Your task to perform on an android device: find snoozed emails in the gmail app Image 0: 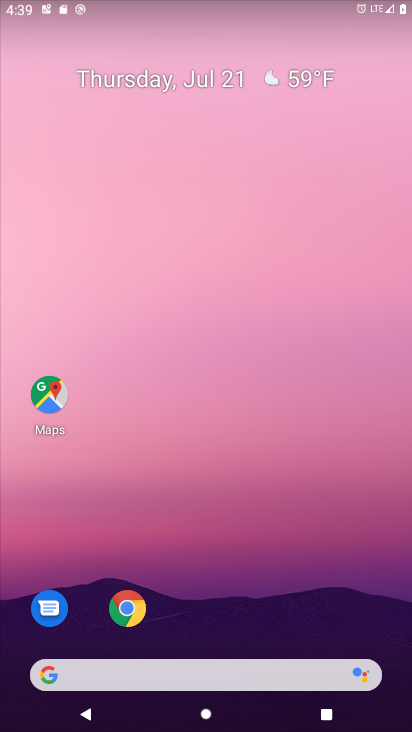
Step 0: drag from (241, 667) to (201, 187)
Your task to perform on an android device: find snoozed emails in the gmail app Image 1: 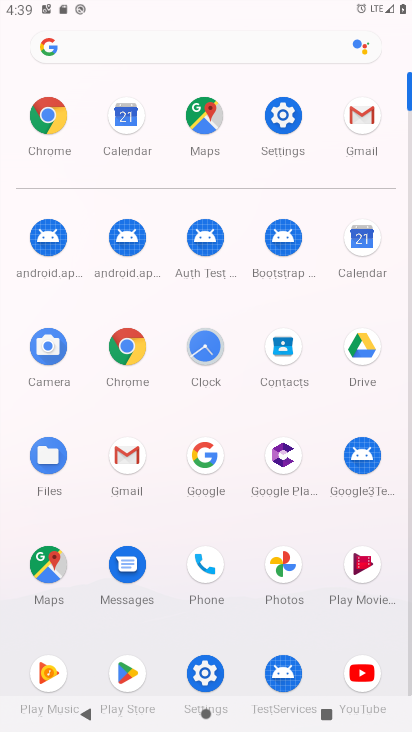
Step 1: drag from (230, 672) to (171, 82)
Your task to perform on an android device: find snoozed emails in the gmail app Image 2: 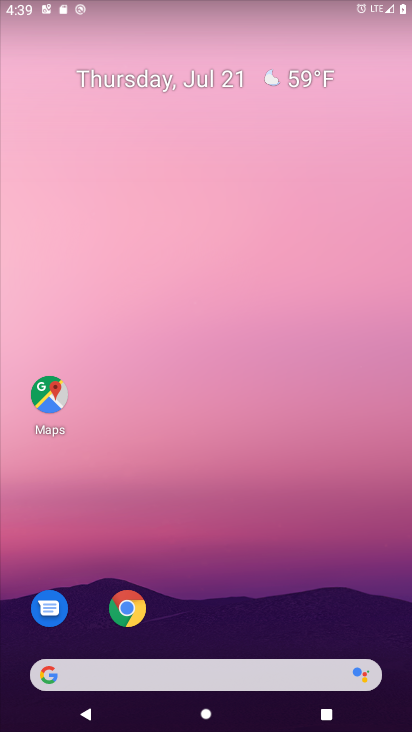
Step 2: drag from (327, 664) to (276, 117)
Your task to perform on an android device: find snoozed emails in the gmail app Image 3: 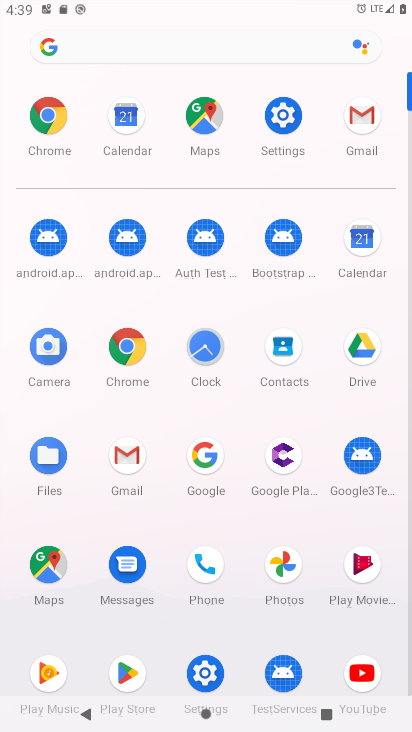
Step 3: click (134, 458)
Your task to perform on an android device: find snoozed emails in the gmail app Image 4: 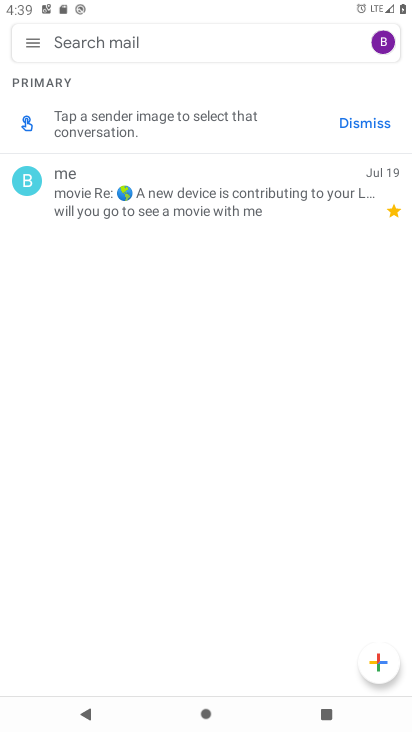
Step 4: click (27, 39)
Your task to perform on an android device: find snoozed emails in the gmail app Image 5: 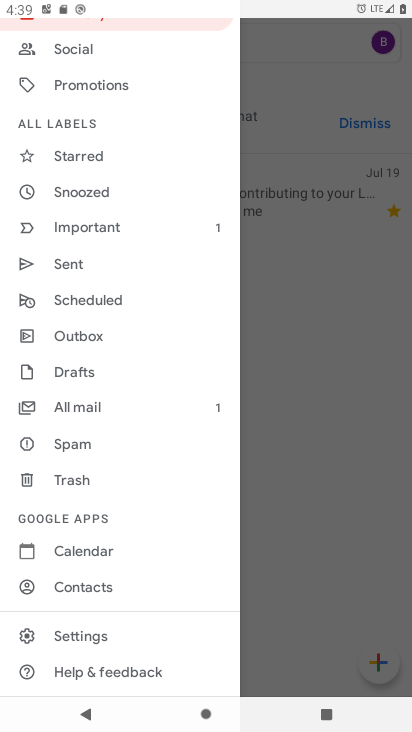
Step 5: click (121, 197)
Your task to perform on an android device: find snoozed emails in the gmail app Image 6: 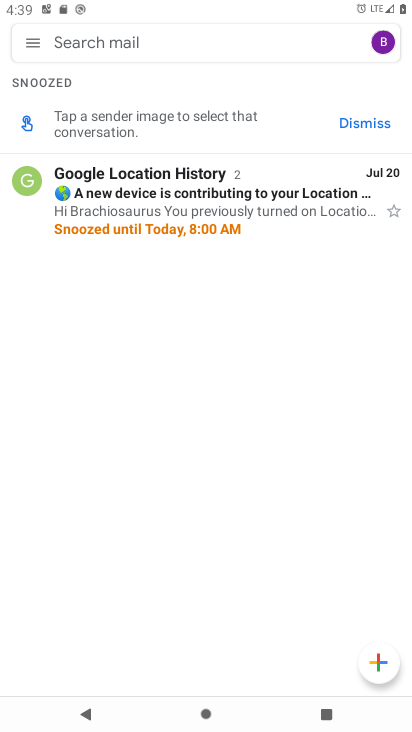
Step 6: task complete